Your task to perform on an android device: When is my next meeting? Image 0: 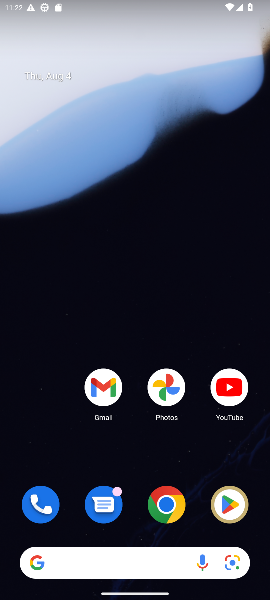
Step 0: drag from (147, 473) to (152, 178)
Your task to perform on an android device: When is my next meeting? Image 1: 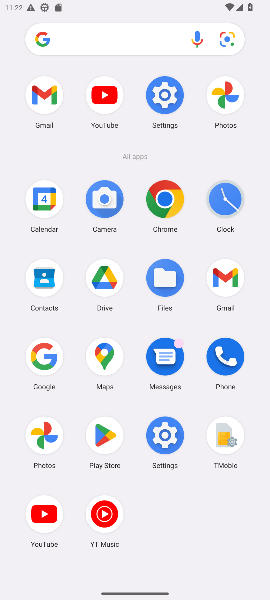
Step 1: click (37, 191)
Your task to perform on an android device: When is my next meeting? Image 2: 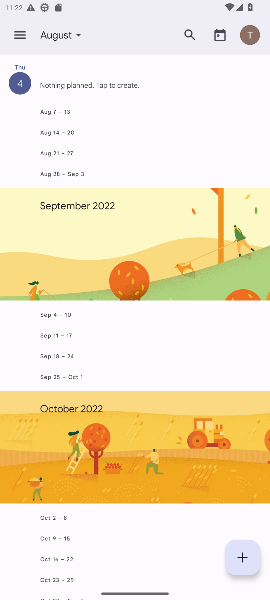
Step 2: click (58, 38)
Your task to perform on an android device: When is my next meeting? Image 3: 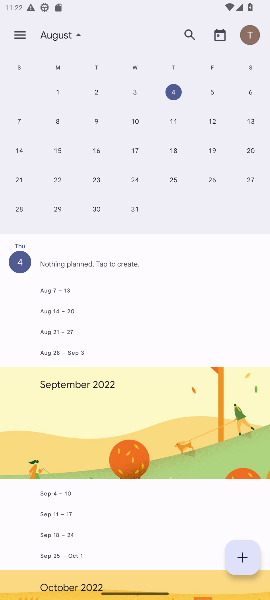
Step 3: click (171, 89)
Your task to perform on an android device: When is my next meeting? Image 4: 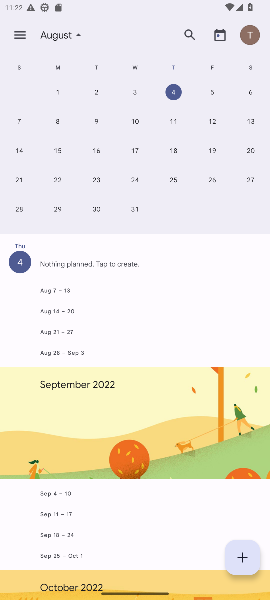
Step 4: task complete